Your task to perform on an android device: turn off location Image 0: 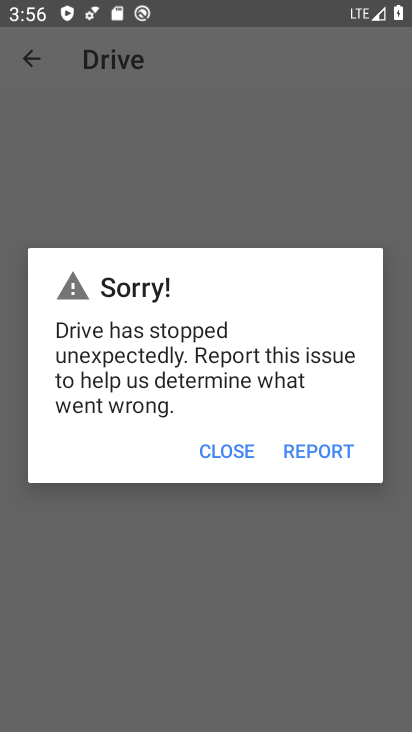
Step 0: press home button
Your task to perform on an android device: turn off location Image 1: 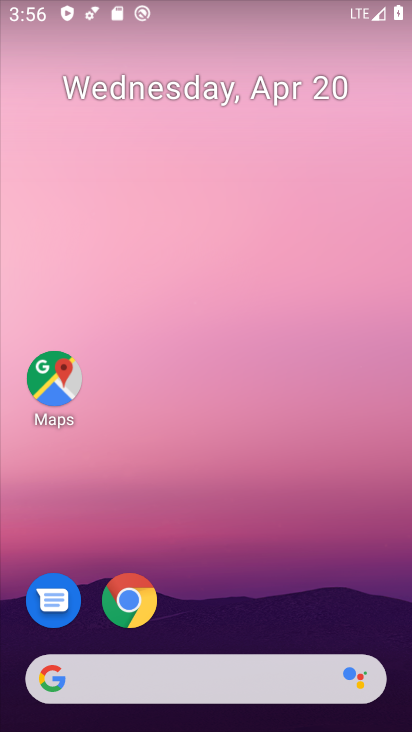
Step 1: drag from (262, 565) to (277, 136)
Your task to perform on an android device: turn off location Image 2: 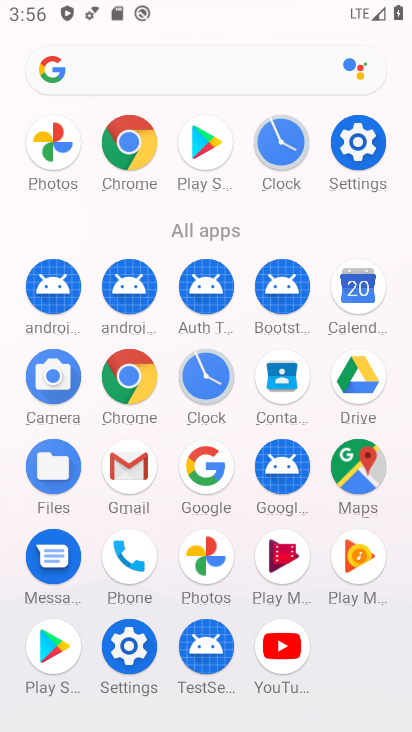
Step 2: click (365, 135)
Your task to perform on an android device: turn off location Image 3: 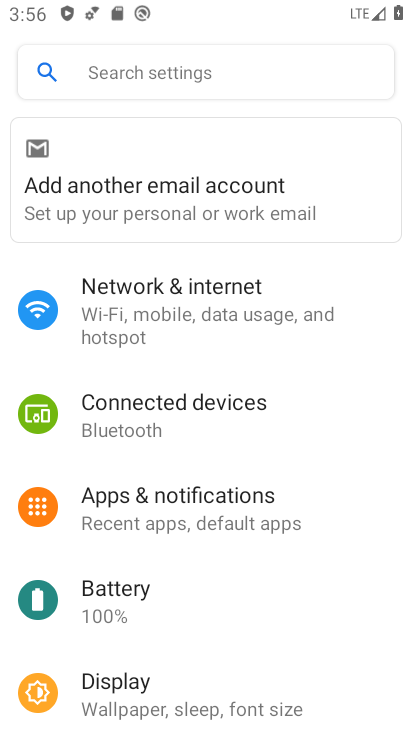
Step 3: drag from (186, 616) to (231, 240)
Your task to perform on an android device: turn off location Image 4: 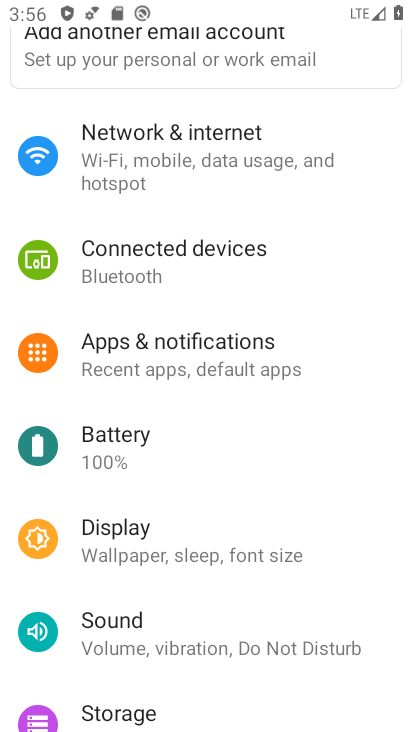
Step 4: drag from (208, 629) to (204, 195)
Your task to perform on an android device: turn off location Image 5: 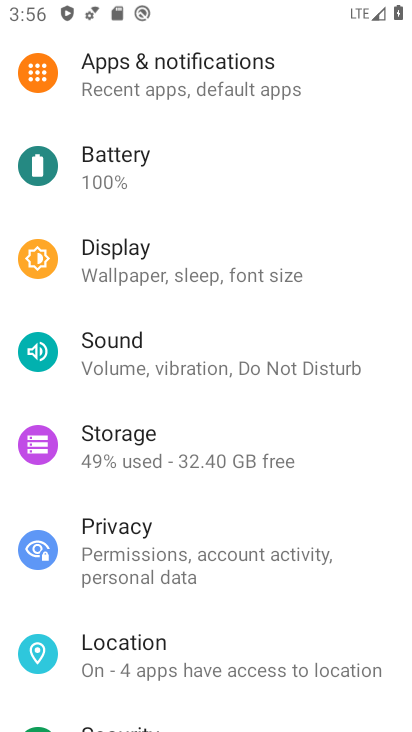
Step 5: click (141, 664)
Your task to perform on an android device: turn off location Image 6: 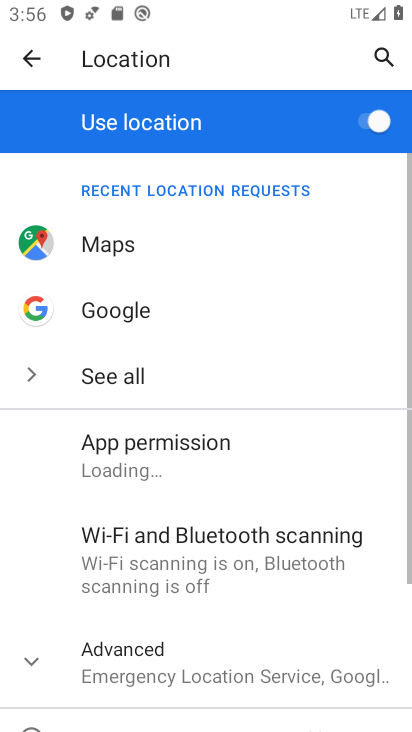
Step 6: click (352, 130)
Your task to perform on an android device: turn off location Image 7: 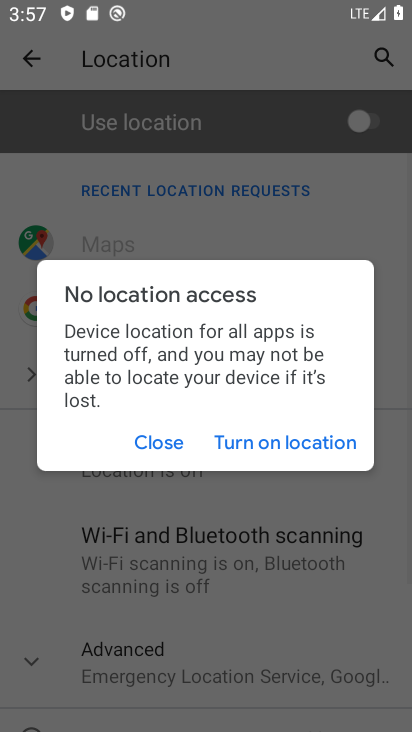
Step 7: task complete